Your task to perform on an android device: star an email in the gmail app Image 0: 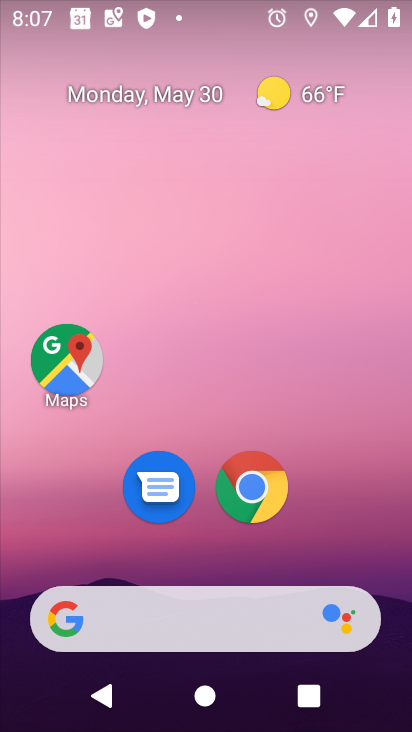
Step 0: press home button
Your task to perform on an android device: star an email in the gmail app Image 1: 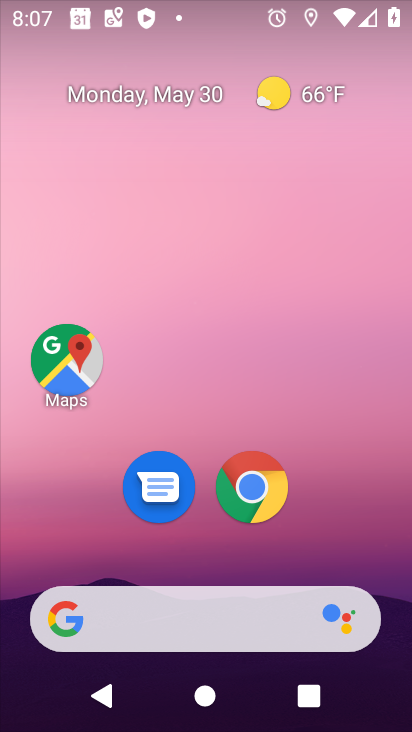
Step 1: drag from (347, 557) to (353, 226)
Your task to perform on an android device: star an email in the gmail app Image 2: 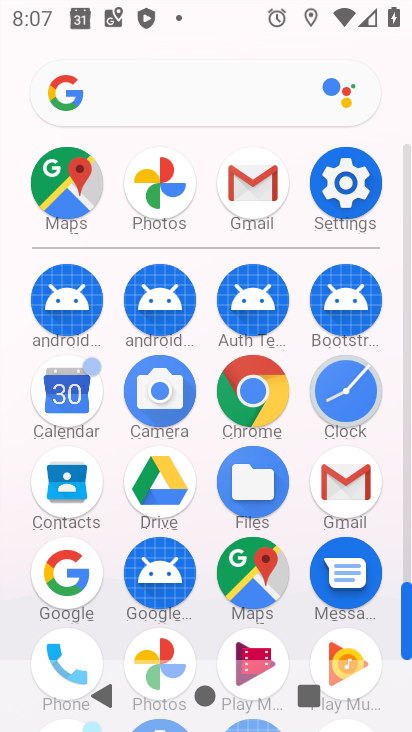
Step 2: click (250, 189)
Your task to perform on an android device: star an email in the gmail app Image 3: 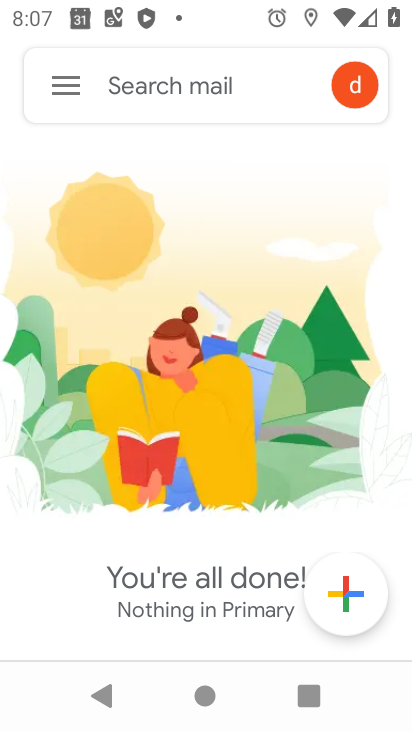
Step 3: click (74, 96)
Your task to perform on an android device: star an email in the gmail app Image 4: 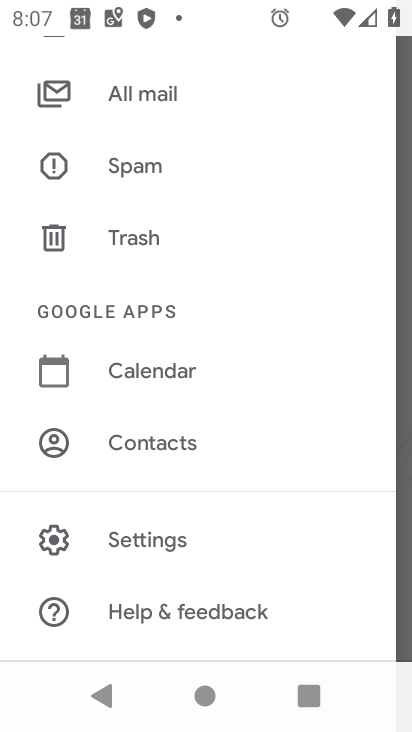
Step 4: click (139, 95)
Your task to perform on an android device: star an email in the gmail app Image 5: 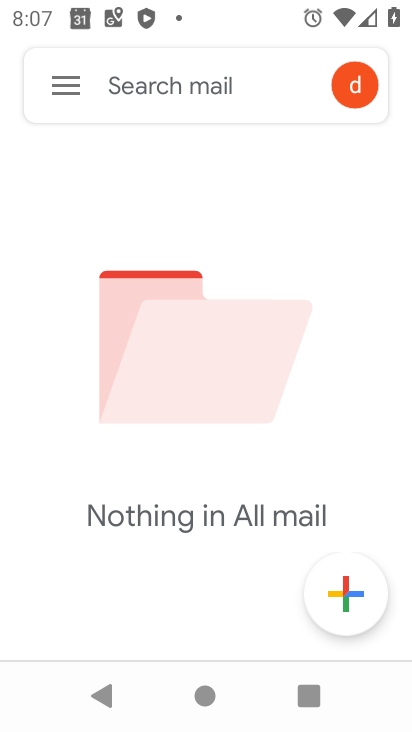
Step 5: task complete